Your task to perform on an android device: Go to wifi settings Image 0: 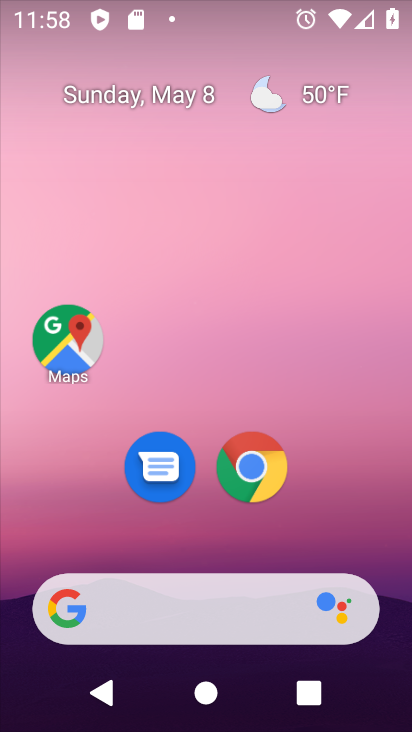
Step 0: drag from (196, 540) to (356, 0)
Your task to perform on an android device: Go to wifi settings Image 1: 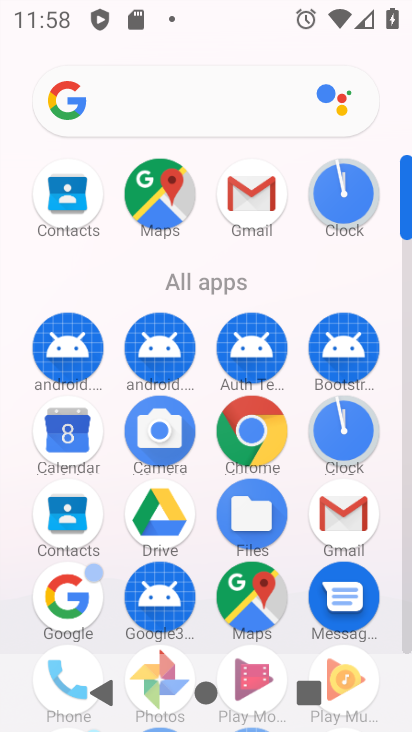
Step 1: drag from (203, 560) to (214, 100)
Your task to perform on an android device: Go to wifi settings Image 2: 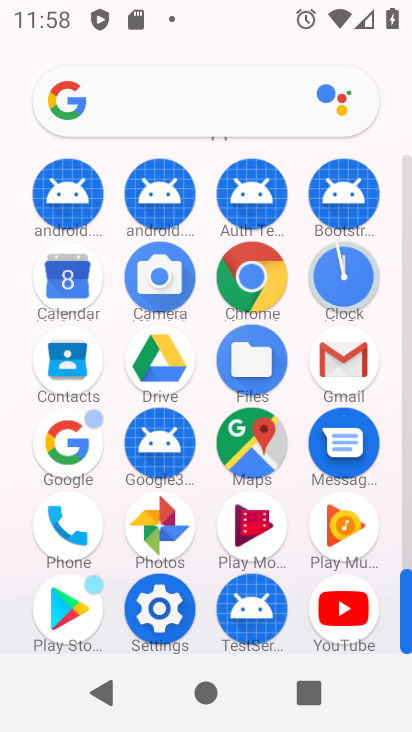
Step 2: click (156, 602)
Your task to perform on an android device: Go to wifi settings Image 3: 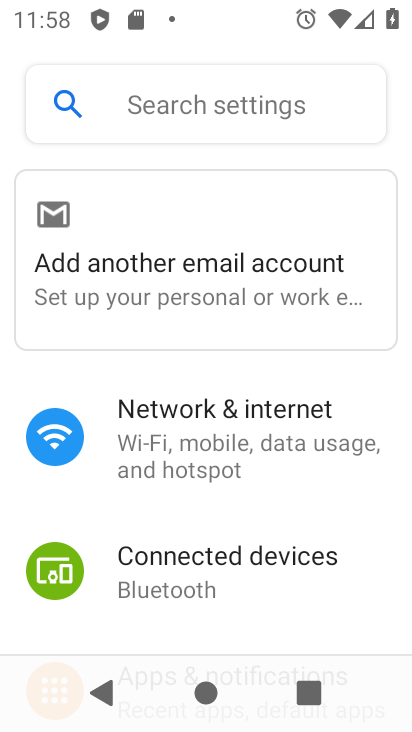
Step 3: click (187, 459)
Your task to perform on an android device: Go to wifi settings Image 4: 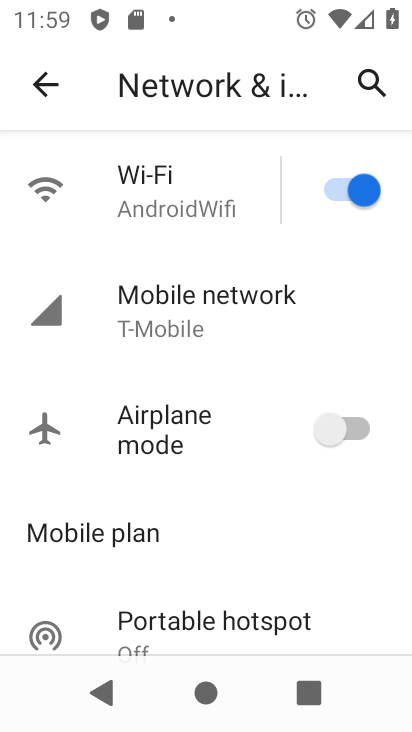
Step 4: click (186, 198)
Your task to perform on an android device: Go to wifi settings Image 5: 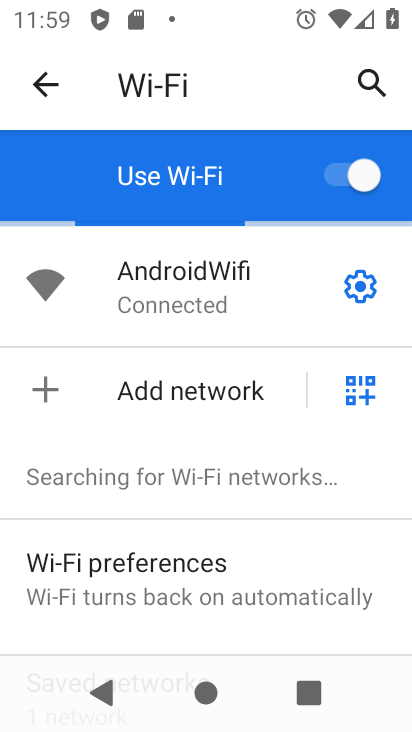
Step 5: task complete